Your task to perform on an android device: Open Amazon Image 0: 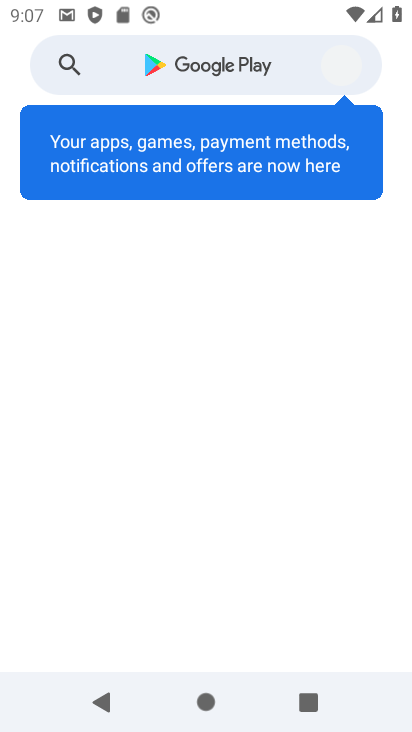
Step 0: press home button
Your task to perform on an android device: Open Amazon Image 1: 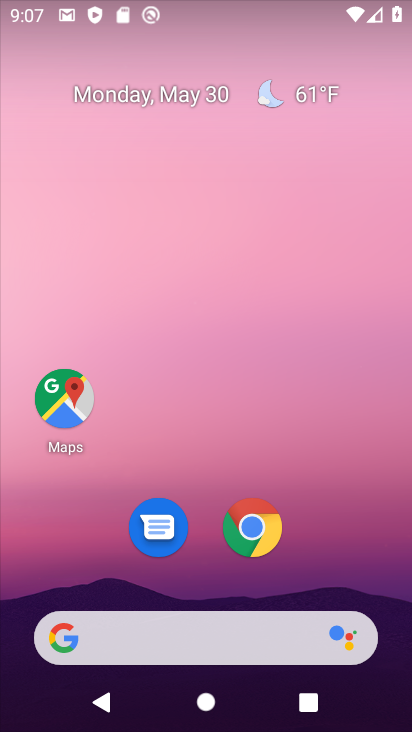
Step 1: click (247, 528)
Your task to perform on an android device: Open Amazon Image 2: 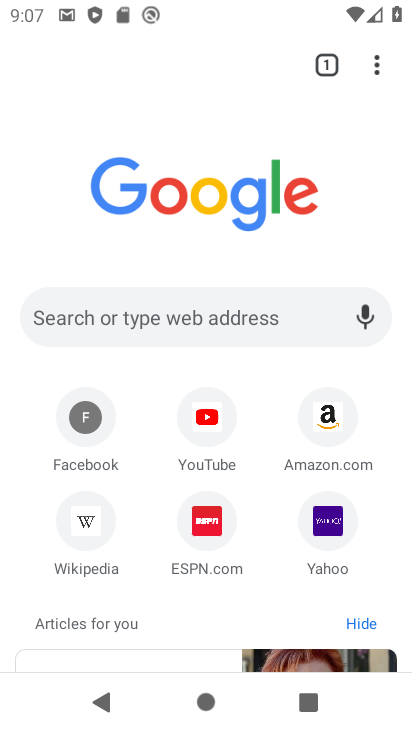
Step 2: click (321, 415)
Your task to perform on an android device: Open Amazon Image 3: 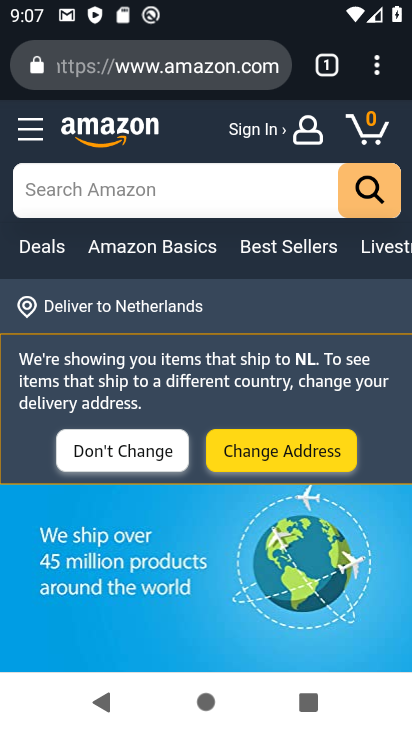
Step 3: task complete